Your task to perform on an android device: What's the weather going to be this weekend? Image 0: 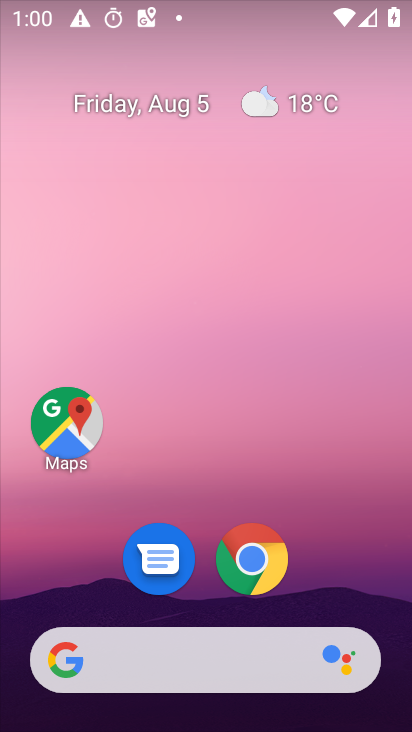
Step 0: click (179, 651)
Your task to perform on an android device: What's the weather going to be this weekend? Image 1: 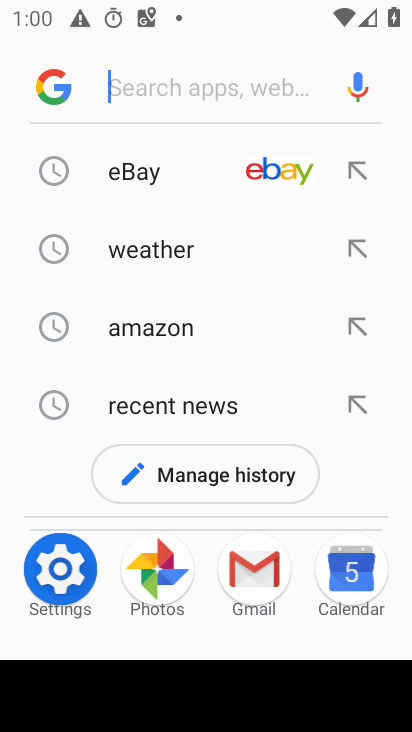
Step 1: type "What's the weather going to be this weekend?"
Your task to perform on an android device: What's the weather going to be this weekend? Image 2: 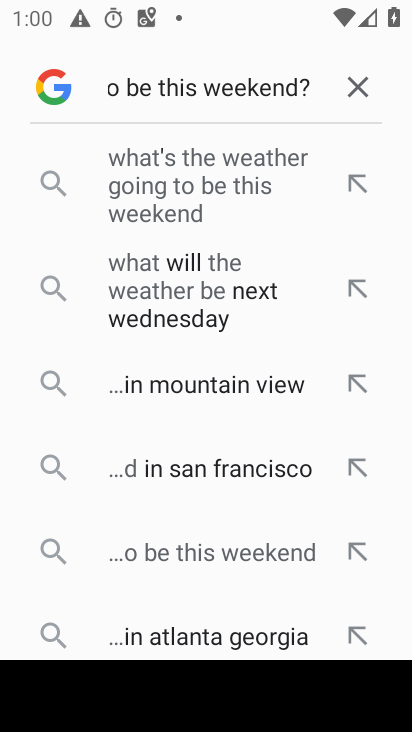
Step 2: click (159, 171)
Your task to perform on an android device: What's the weather going to be this weekend? Image 3: 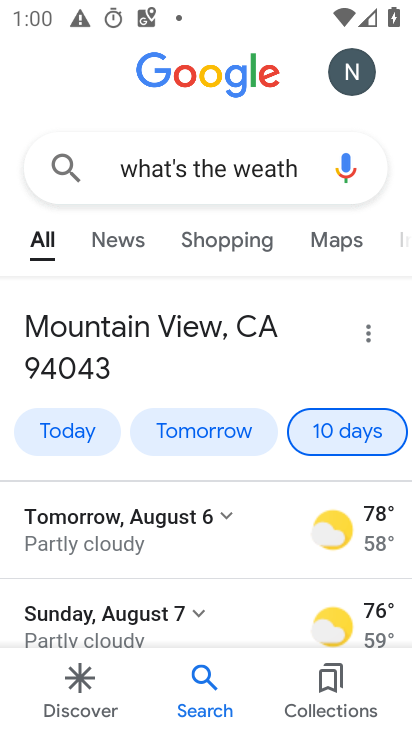
Step 3: task complete